Your task to perform on an android device: toggle improve location accuracy Image 0: 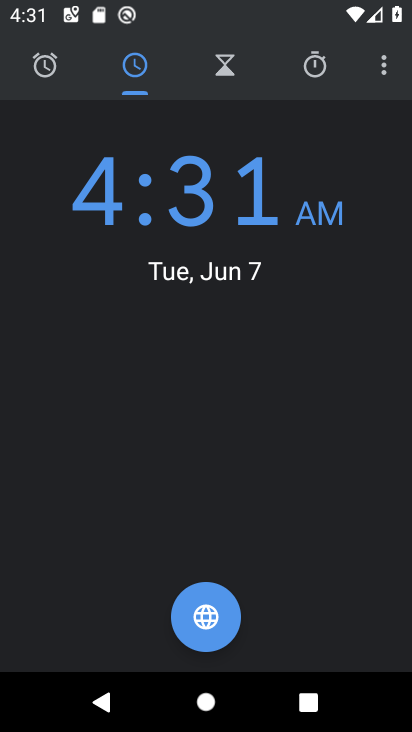
Step 0: press home button
Your task to perform on an android device: toggle improve location accuracy Image 1: 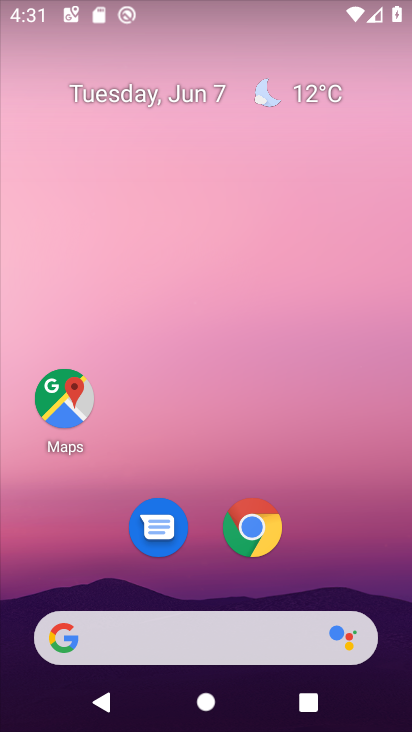
Step 1: drag from (167, 538) to (295, 4)
Your task to perform on an android device: toggle improve location accuracy Image 2: 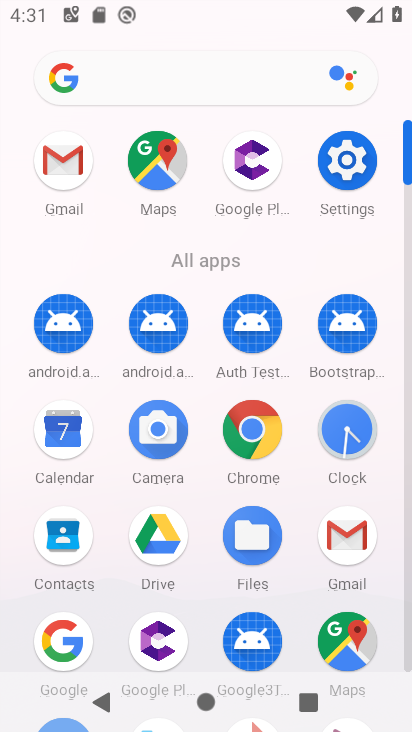
Step 2: click (321, 161)
Your task to perform on an android device: toggle improve location accuracy Image 3: 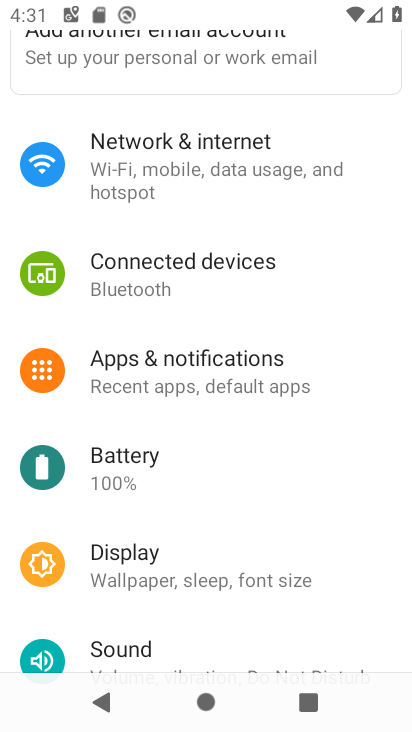
Step 3: drag from (230, 547) to (276, 286)
Your task to perform on an android device: toggle improve location accuracy Image 4: 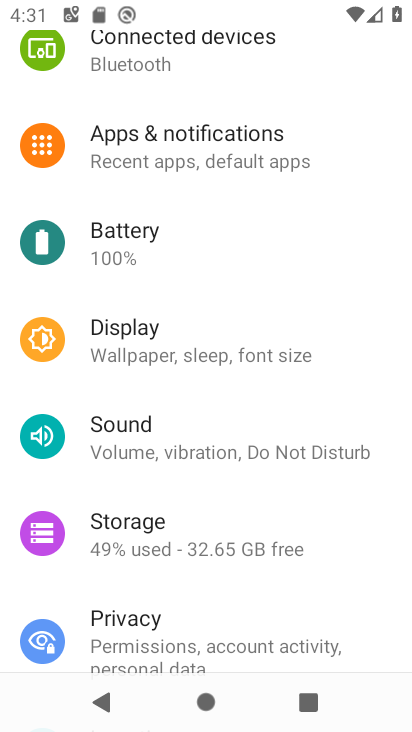
Step 4: drag from (187, 561) to (238, 95)
Your task to perform on an android device: toggle improve location accuracy Image 5: 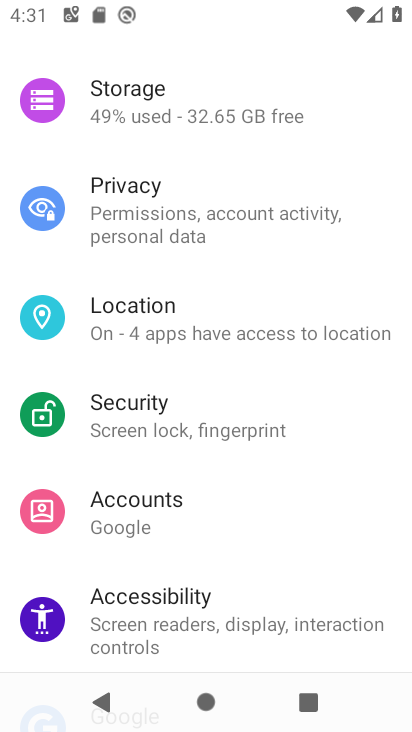
Step 5: click (152, 336)
Your task to perform on an android device: toggle improve location accuracy Image 6: 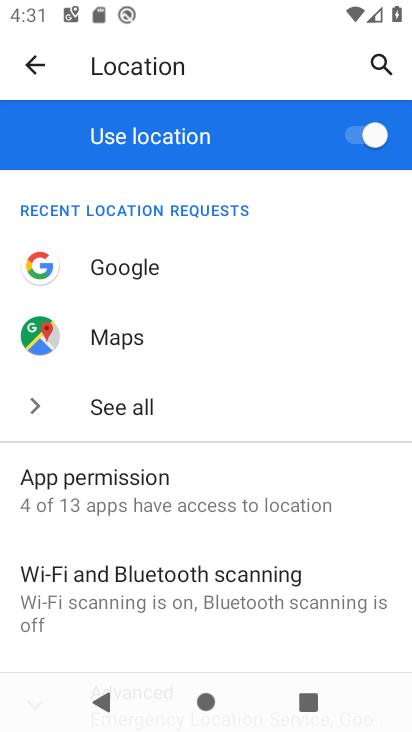
Step 6: drag from (125, 533) to (161, 363)
Your task to perform on an android device: toggle improve location accuracy Image 7: 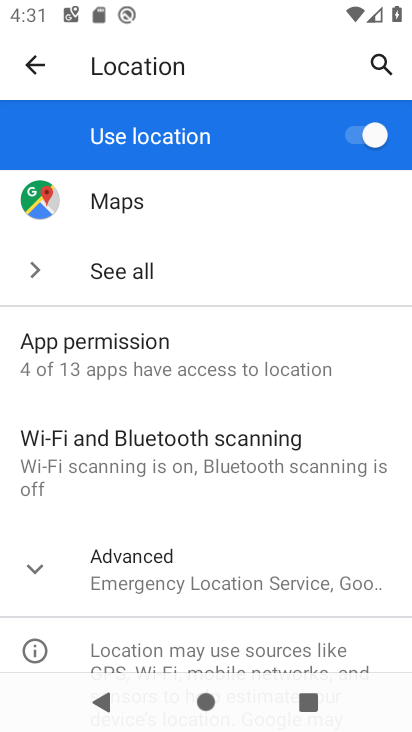
Step 7: click (147, 587)
Your task to perform on an android device: toggle improve location accuracy Image 8: 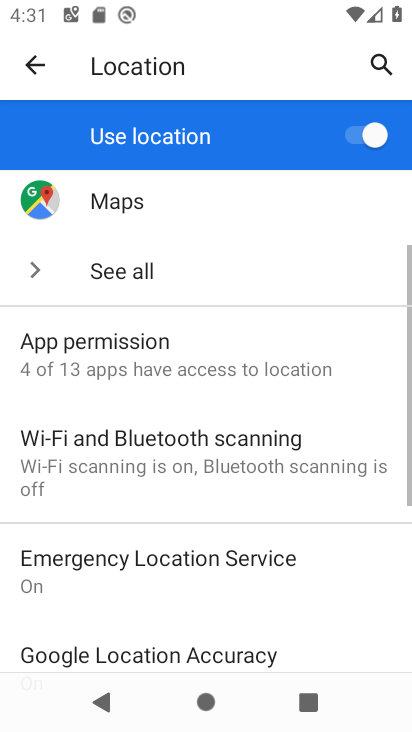
Step 8: drag from (146, 591) to (174, 389)
Your task to perform on an android device: toggle improve location accuracy Image 9: 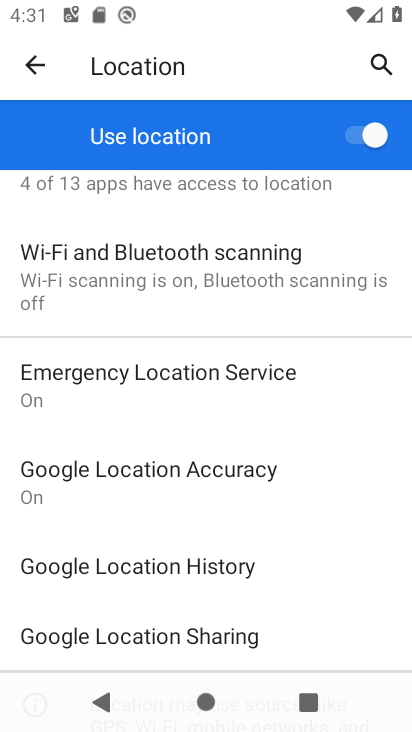
Step 9: click (159, 483)
Your task to perform on an android device: toggle improve location accuracy Image 10: 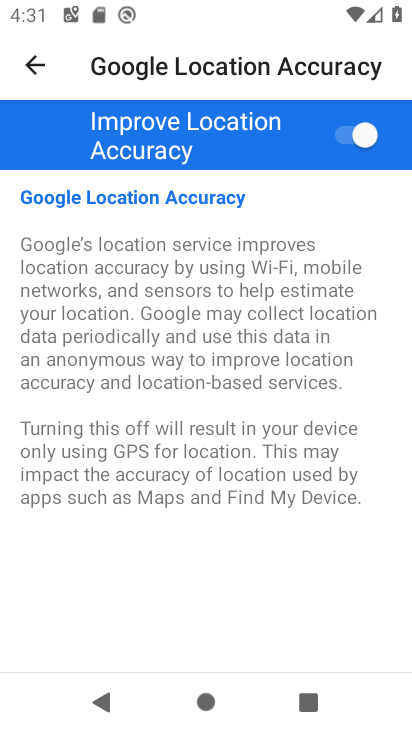
Step 10: click (329, 142)
Your task to perform on an android device: toggle improve location accuracy Image 11: 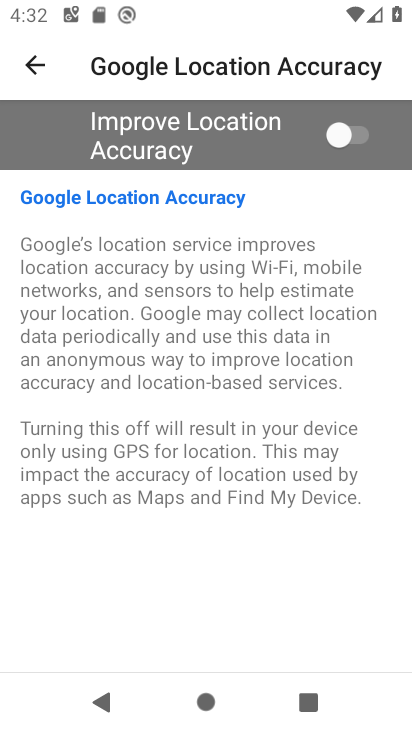
Step 11: task complete